Your task to perform on an android device: change the clock display to analog Image 0: 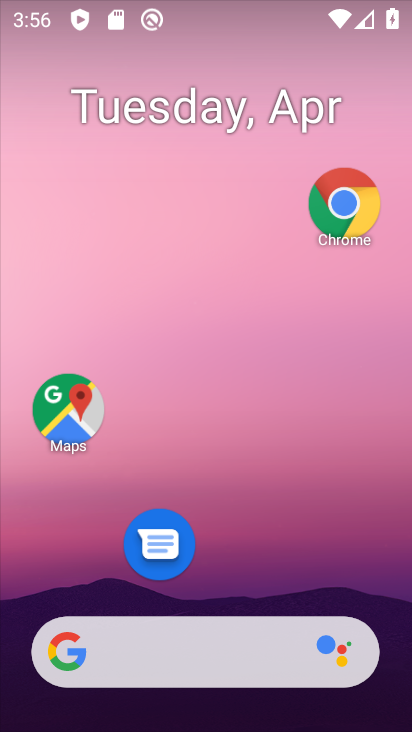
Step 0: click (331, 206)
Your task to perform on an android device: change the clock display to analog Image 1: 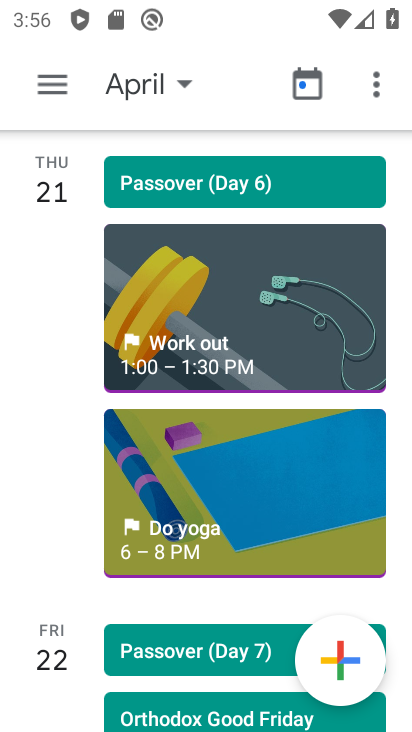
Step 1: press home button
Your task to perform on an android device: change the clock display to analog Image 2: 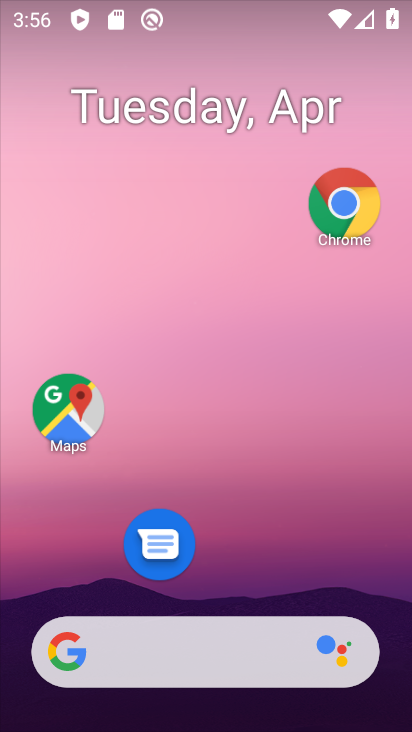
Step 2: drag from (265, 541) to (364, 8)
Your task to perform on an android device: change the clock display to analog Image 3: 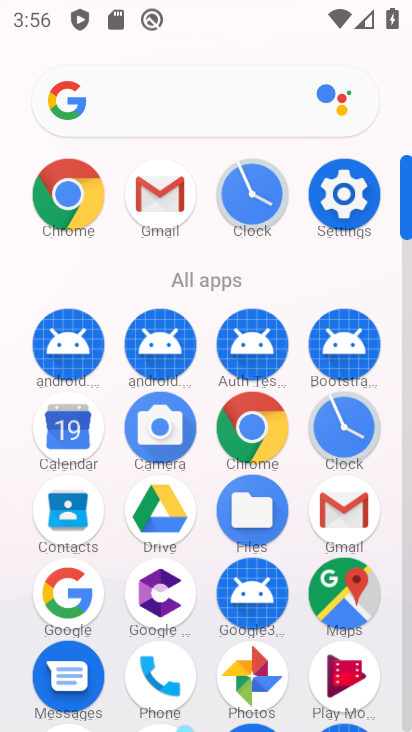
Step 3: click (324, 439)
Your task to perform on an android device: change the clock display to analog Image 4: 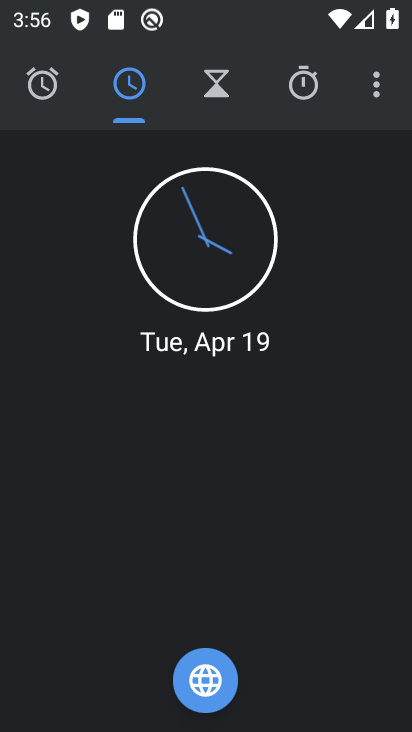
Step 4: click (375, 79)
Your task to perform on an android device: change the clock display to analog Image 5: 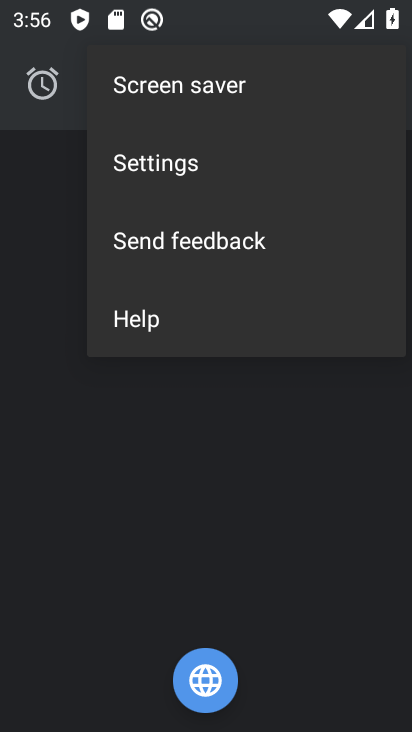
Step 5: click (189, 170)
Your task to perform on an android device: change the clock display to analog Image 6: 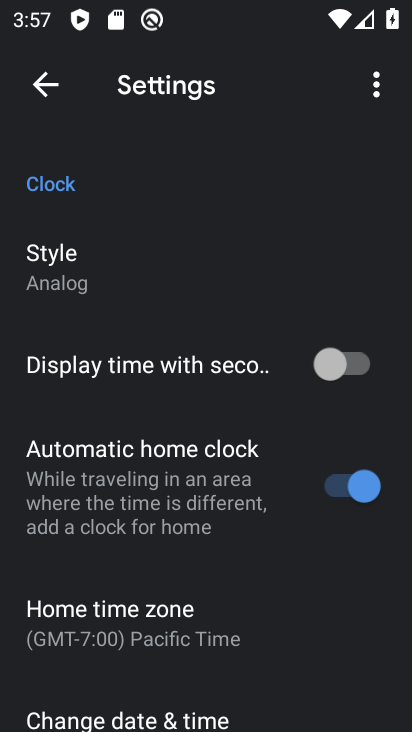
Step 6: task complete